Your task to perform on an android device: What is the recent news? Image 0: 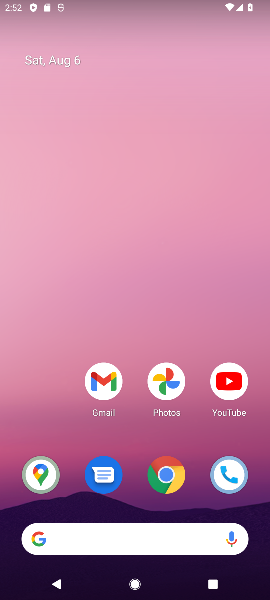
Step 0: click (63, 528)
Your task to perform on an android device: What is the recent news? Image 1: 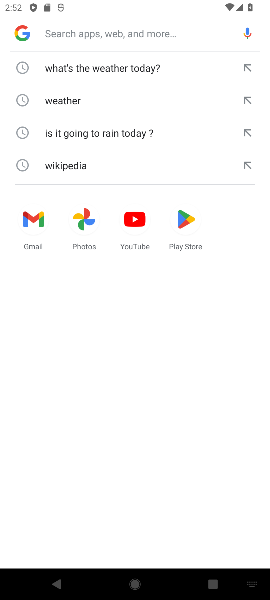
Step 1: type "What is the recent news?"
Your task to perform on an android device: What is the recent news? Image 2: 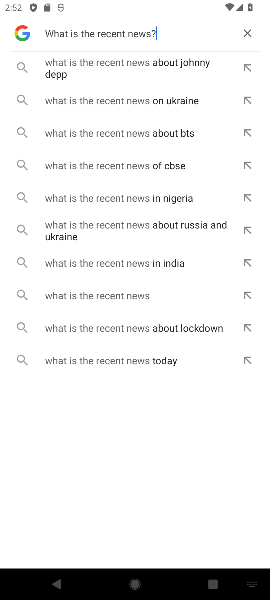
Step 2: type ""
Your task to perform on an android device: What is the recent news? Image 3: 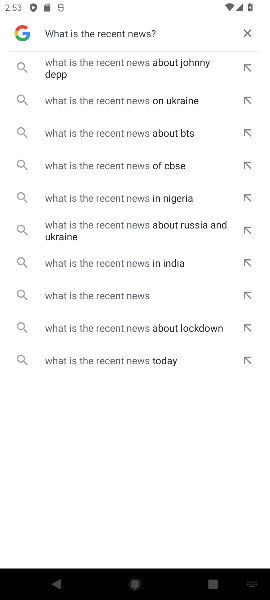
Step 3: task complete